Your task to perform on an android device: Go to Wikipedia Image 0: 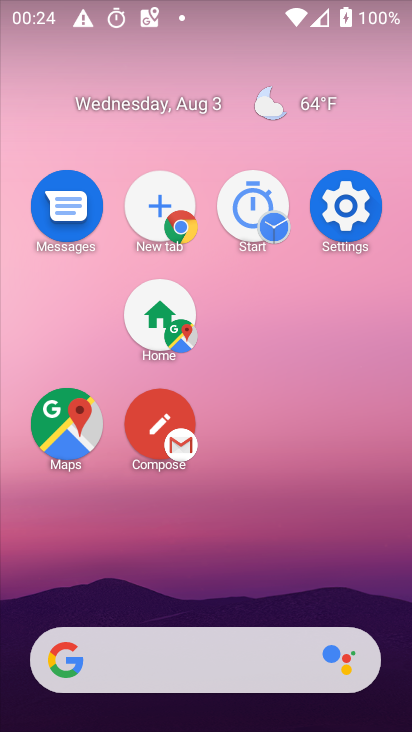
Step 0: drag from (275, 695) to (265, 402)
Your task to perform on an android device: Go to Wikipedia Image 1: 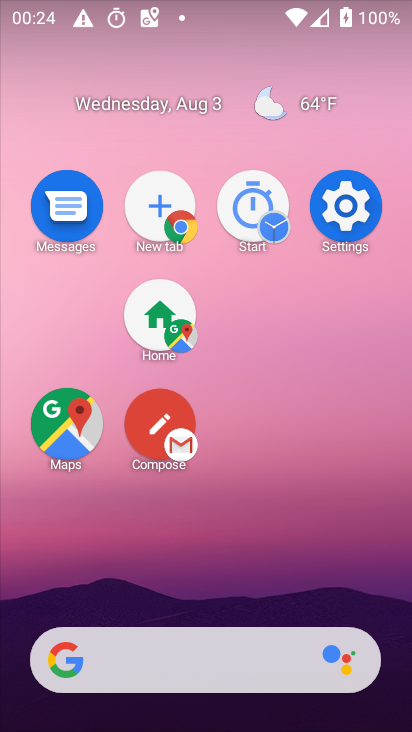
Step 1: drag from (319, 584) to (255, 73)
Your task to perform on an android device: Go to Wikipedia Image 2: 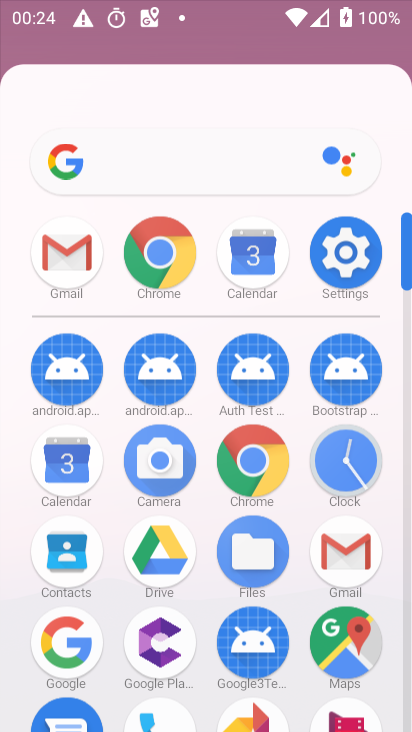
Step 2: drag from (241, 557) to (218, 318)
Your task to perform on an android device: Go to Wikipedia Image 3: 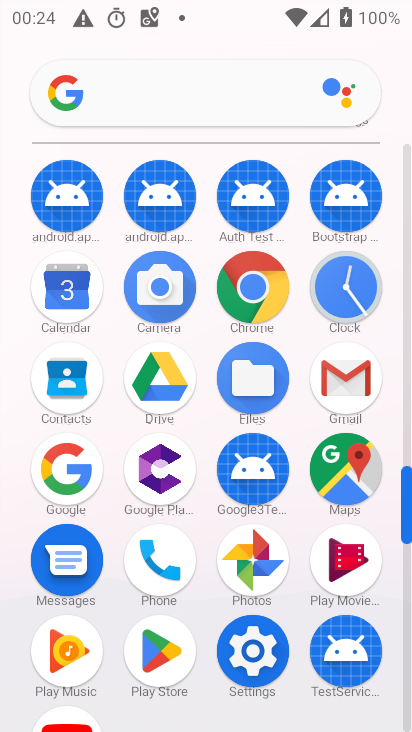
Step 3: click (262, 292)
Your task to perform on an android device: Go to Wikipedia Image 4: 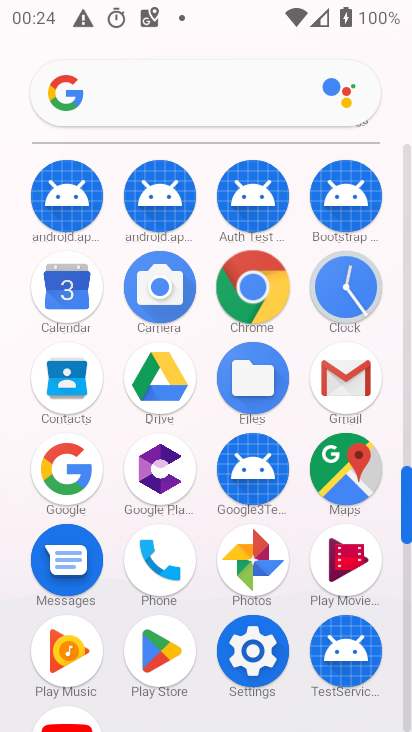
Step 4: click (261, 292)
Your task to perform on an android device: Go to Wikipedia Image 5: 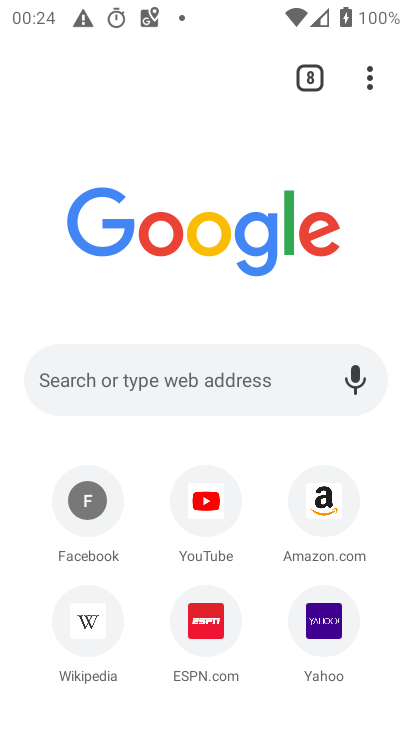
Step 5: click (98, 629)
Your task to perform on an android device: Go to Wikipedia Image 6: 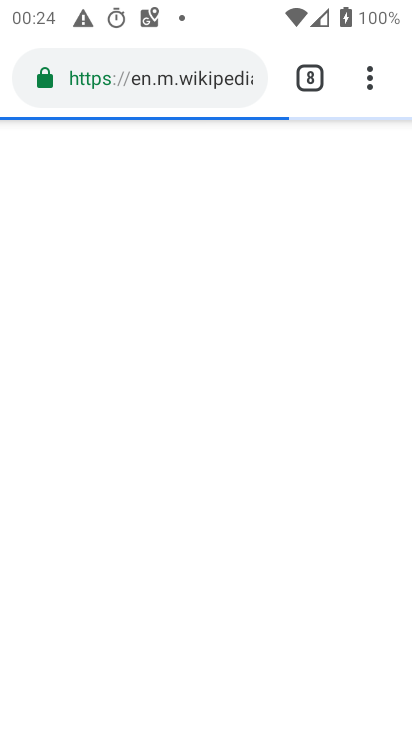
Step 6: click (105, 628)
Your task to perform on an android device: Go to Wikipedia Image 7: 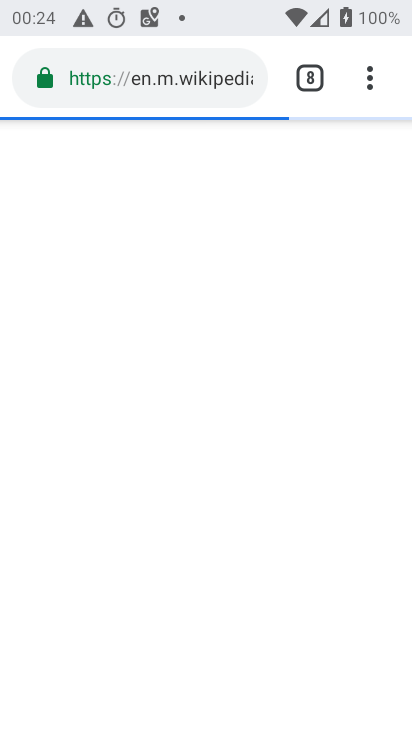
Step 7: click (107, 625)
Your task to perform on an android device: Go to Wikipedia Image 8: 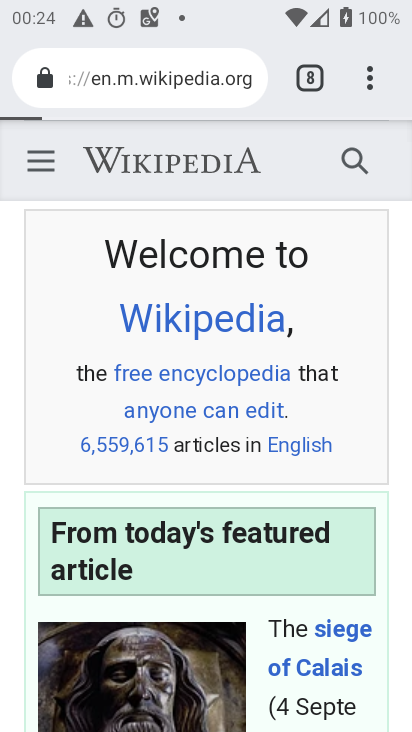
Step 8: task complete